Your task to perform on an android device: What is the recent news? Image 0: 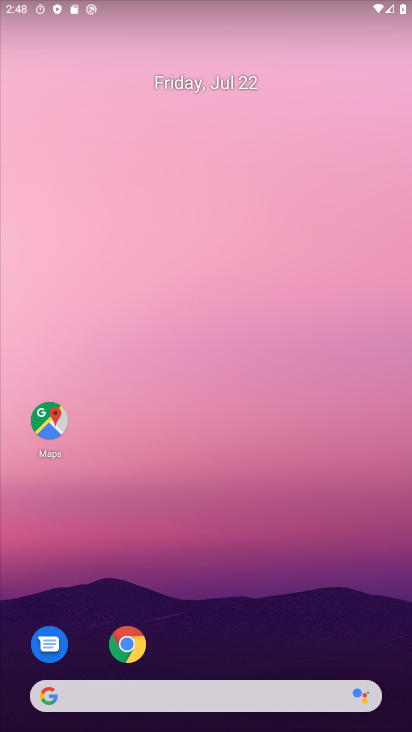
Step 0: press home button
Your task to perform on an android device: What is the recent news? Image 1: 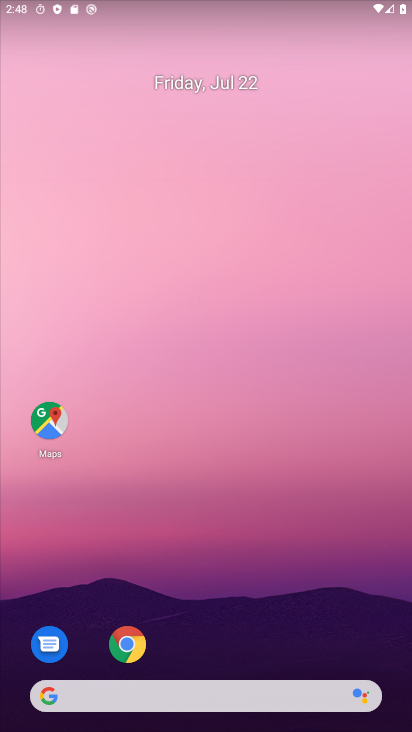
Step 1: click (50, 701)
Your task to perform on an android device: What is the recent news? Image 2: 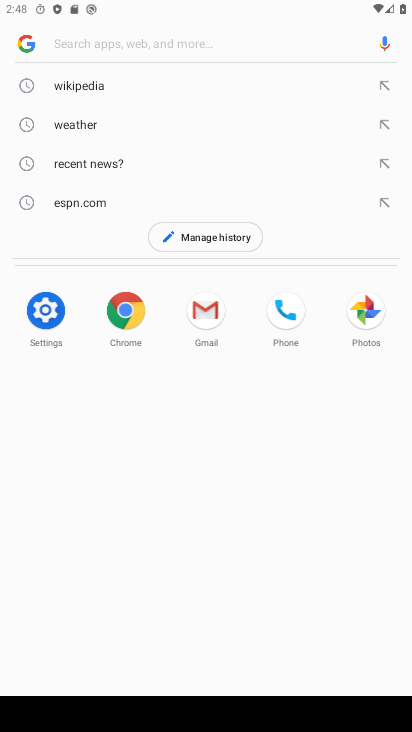
Step 2: click (76, 162)
Your task to perform on an android device: What is the recent news? Image 3: 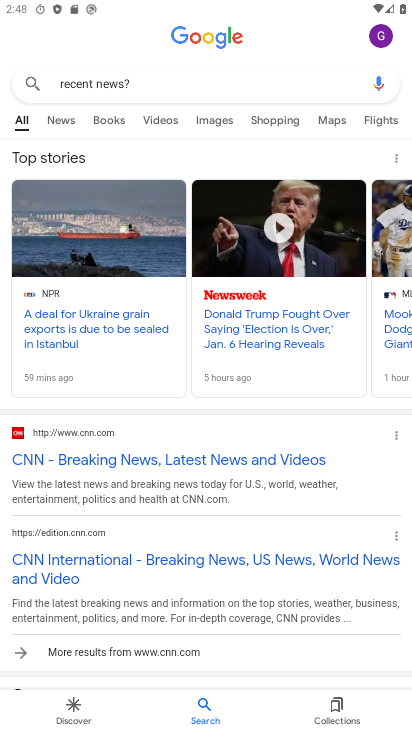
Step 3: task complete